Your task to perform on an android device: move a message to another label in the gmail app Image 0: 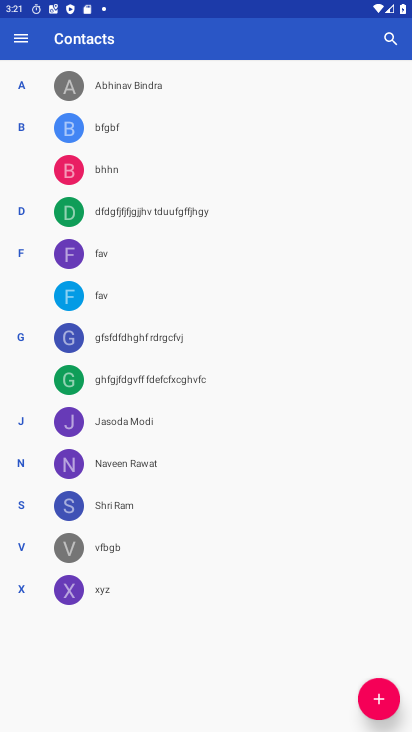
Step 0: press home button
Your task to perform on an android device: move a message to another label in the gmail app Image 1: 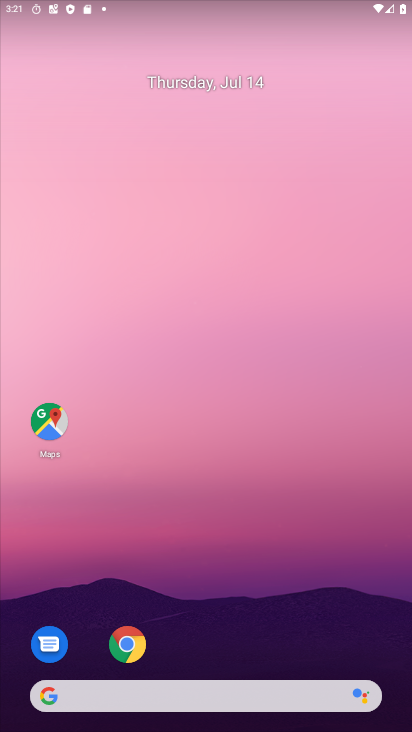
Step 1: drag from (16, 709) to (328, 132)
Your task to perform on an android device: move a message to another label in the gmail app Image 2: 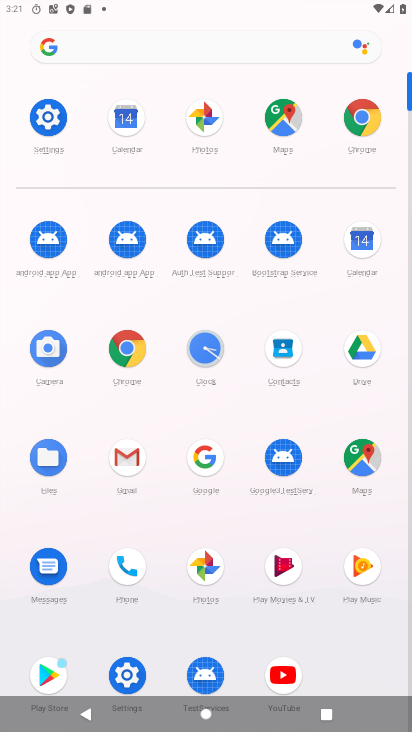
Step 2: click (137, 464)
Your task to perform on an android device: move a message to another label in the gmail app Image 3: 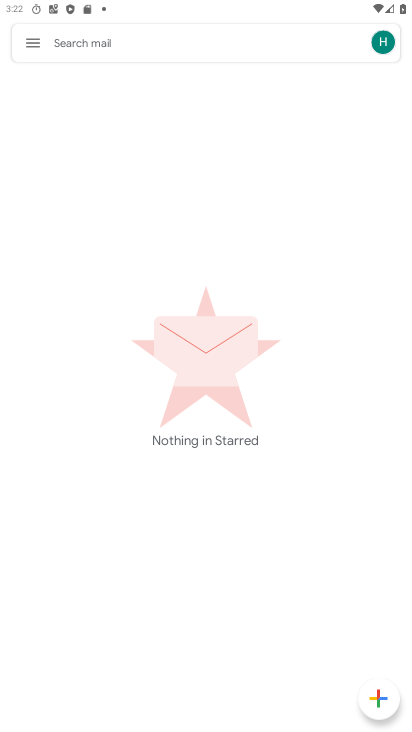
Step 3: task complete